Your task to perform on an android device: Open CNN.com Image 0: 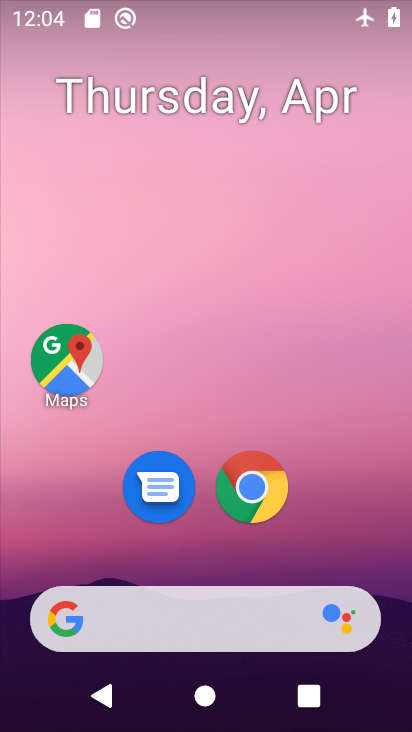
Step 0: drag from (282, 662) to (224, 113)
Your task to perform on an android device: Open CNN.com Image 1: 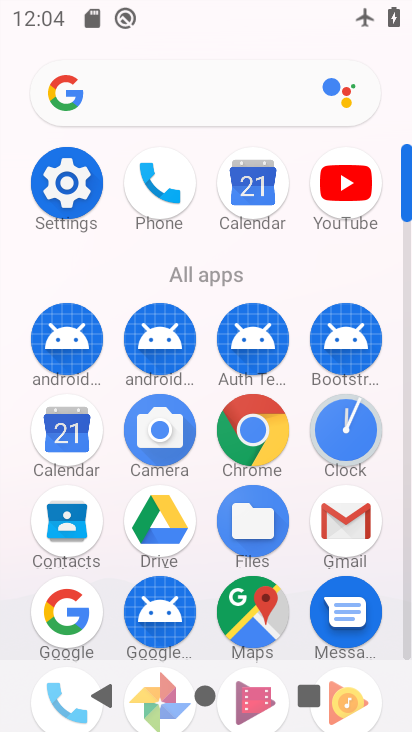
Step 1: click (249, 419)
Your task to perform on an android device: Open CNN.com Image 2: 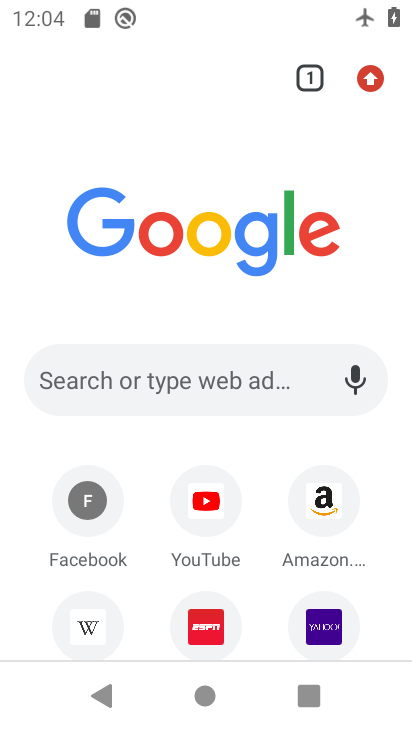
Step 2: click (211, 363)
Your task to perform on an android device: Open CNN.com Image 3: 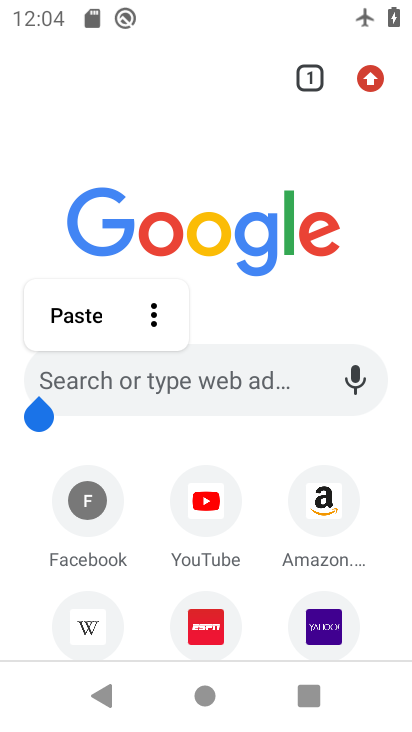
Step 3: click (170, 376)
Your task to perform on an android device: Open CNN.com Image 4: 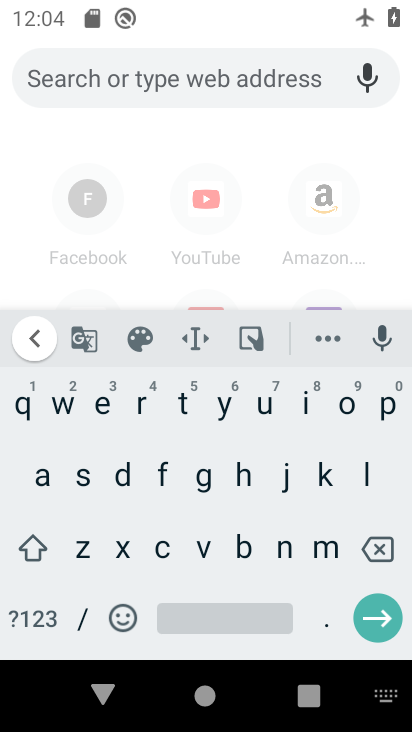
Step 4: click (162, 549)
Your task to perform on an android device: Open CNN.com Image 5: 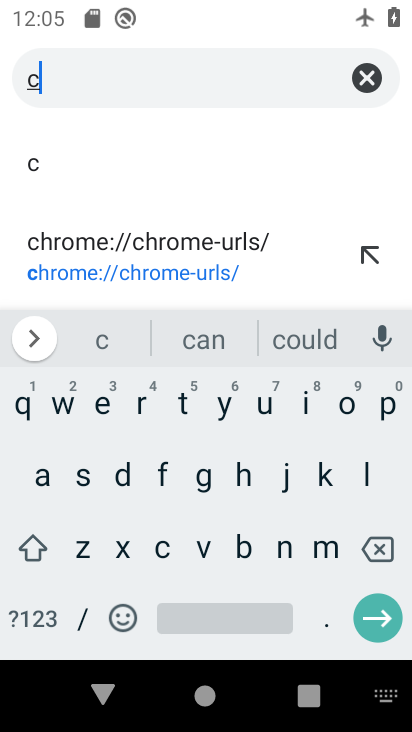
Step 5: click (286, 550)
Your task to perform on an android device: Open CNN.com Image 6: 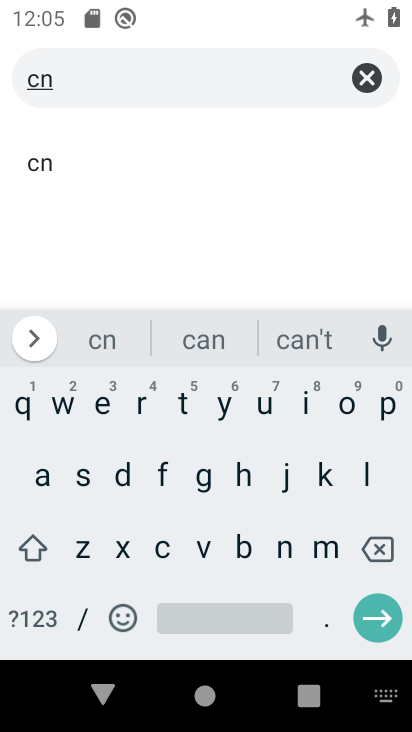
Step 6: click (286, 551)
Your task to perform on an android device: Open CNN.com Image 7: 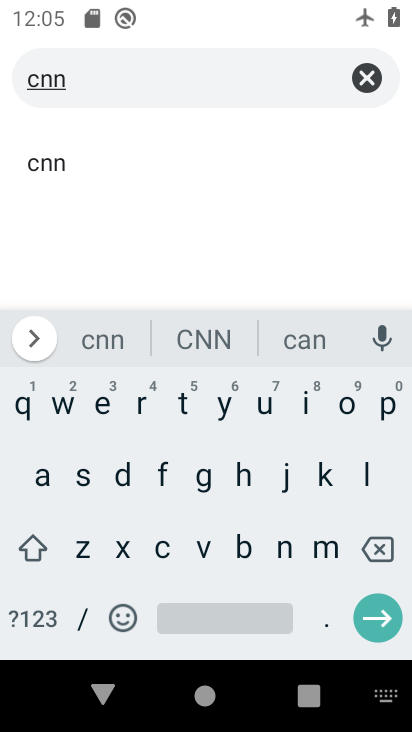
Step 7: click (319, 621)
Your task to perform on an android device: Open CNN.com Image 8: 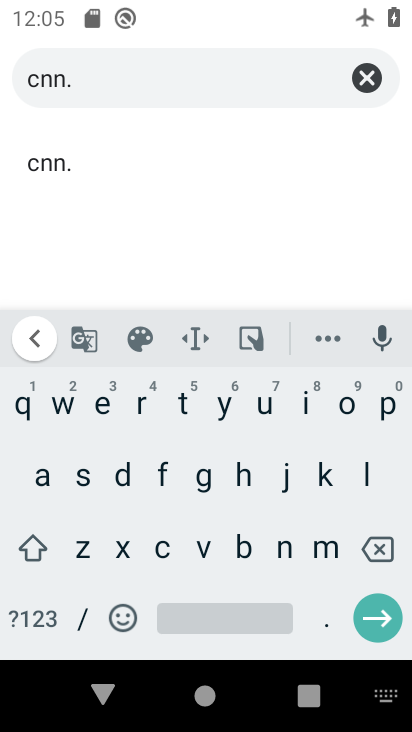
Step 8: click (159, 546)
Your task to perform on an android device: Open CNN.com Image 9: 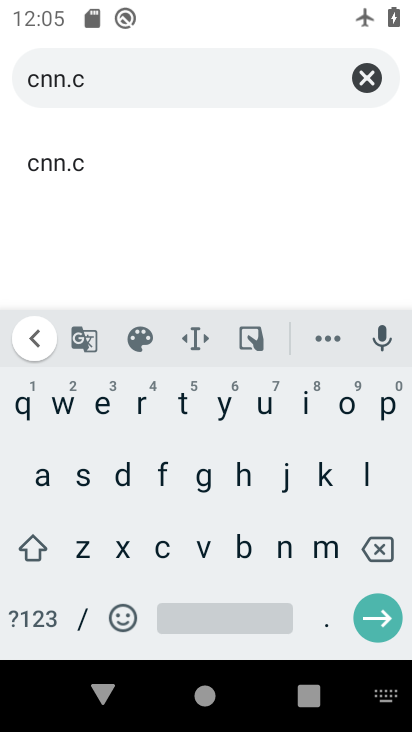
Step 9: click (340, 414)
Your task to perform on an android device: Open CNN.com Image 10: 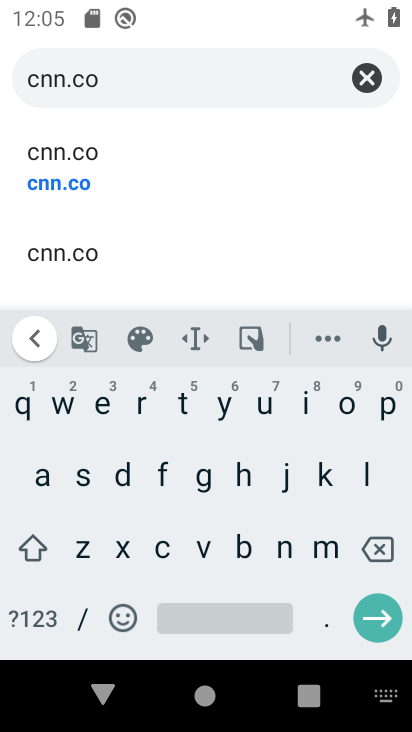
Step 10: click (321, 548)
Your task to perform on an android device: Open CNN.com Image 11: 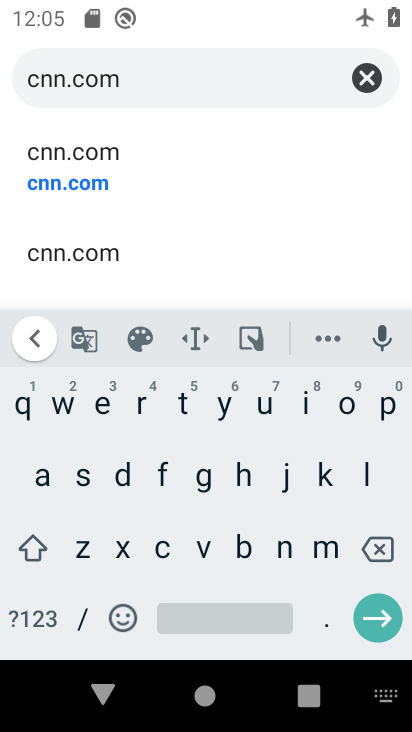
Step 11: click (121, 162)
Your task to perform on an android device: Open CNN.com Image 12: 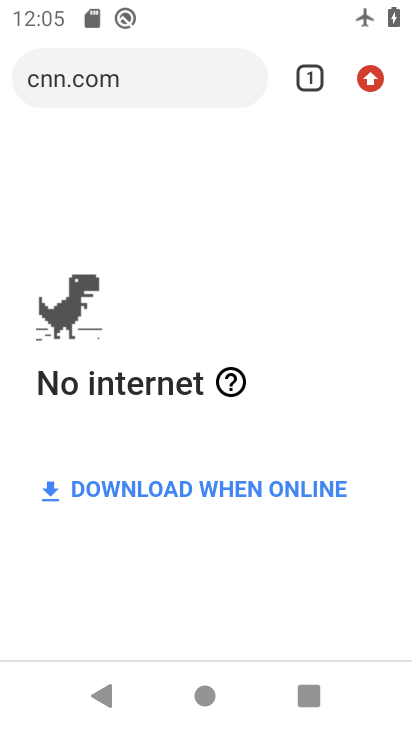
Step 12: press home button
Your task to perform on an android device: Open CNN.com Image 13: 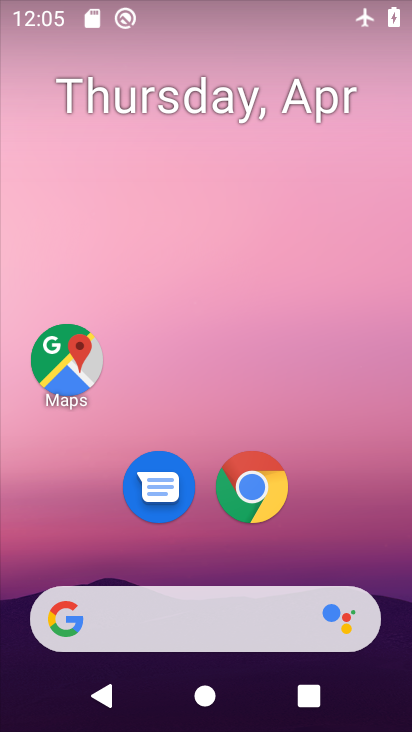
Step 13: drag from (228, 652) to (250, 186)
Your task to perform on an android device: Open CNN.com Image 14: 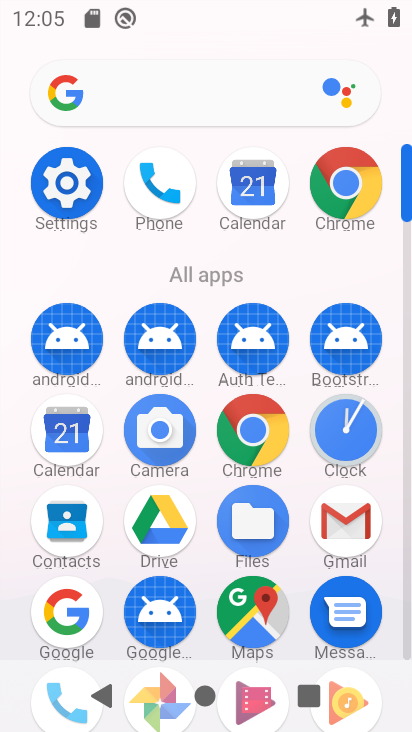
Step 14: click (64, 216)
Your task to perform on an android device: Open CNN.com Image 15: 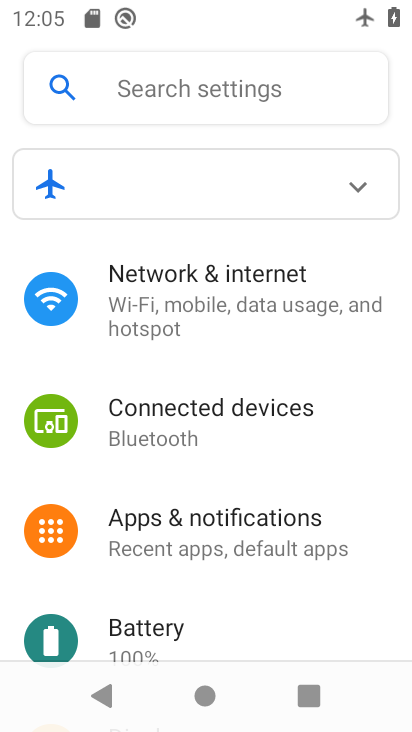
Step 15: click (355, 190)
Your task to perform on an android device: Open CNN.com Image 16: 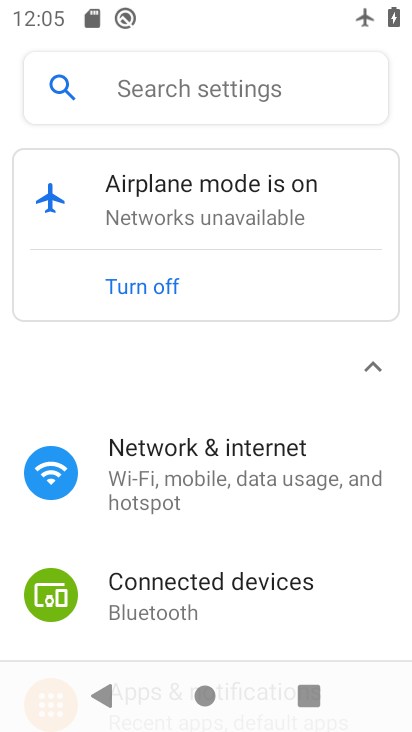
Step 16: click (121, 293)
Your task to perform on an android device: Open CNN.com Image 17: 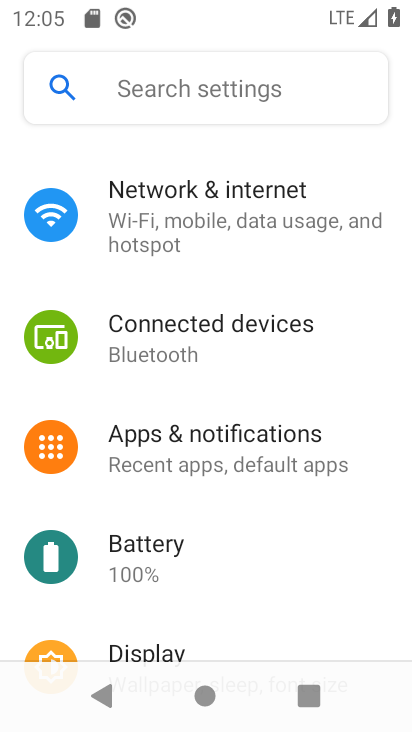
Step 17: press home button
Your task to perform on an android device: Open CNN.com Image 18: 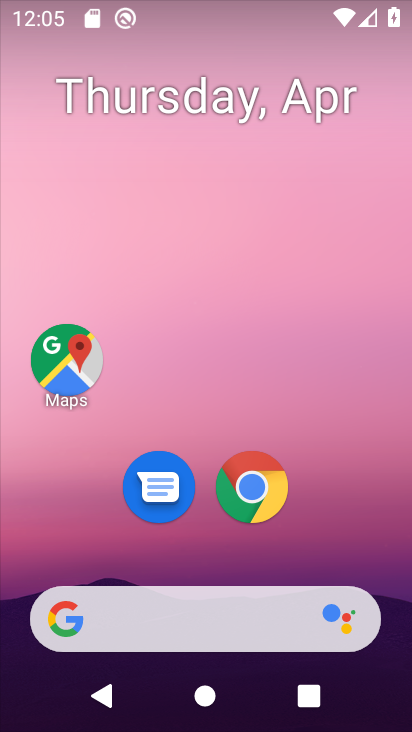
Step 18: drag from (235, 675) to (292, 228)
Your task to perform on an android device: Open CNN.com Image 19: 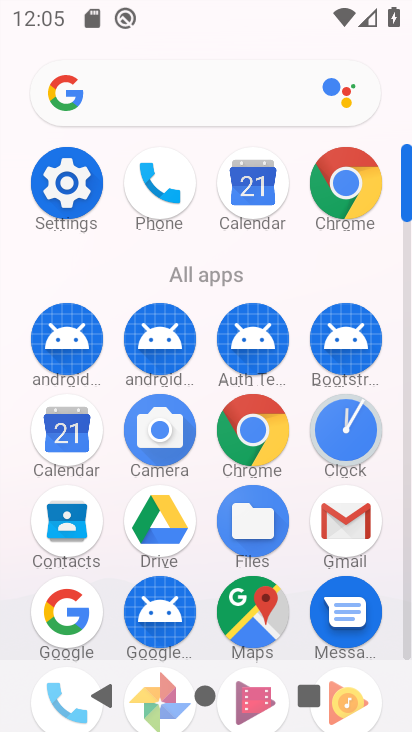
Step 19: click (353, 196)
Your task to perform on an android device: Open CNN.com Image 20: 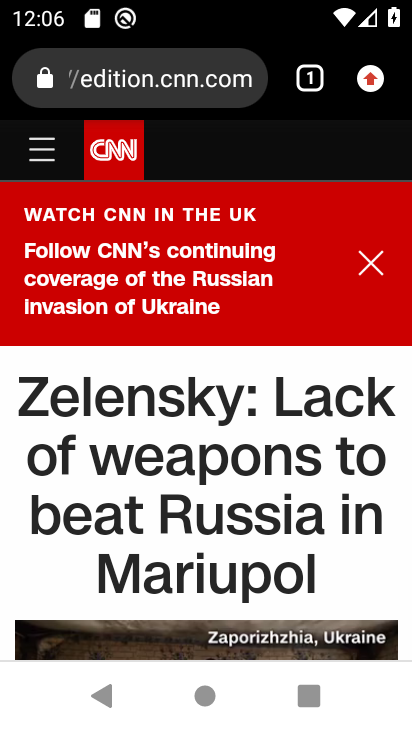
Step 20: task complete